Your task to perform on an android device: Turn on the flashlight Image 0: 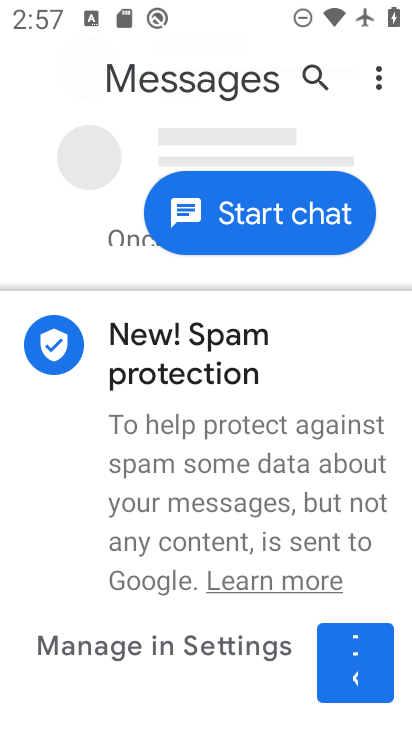
Step 0: press home button
Your task to perform on an android device: Turn on the flashlight Image 1: 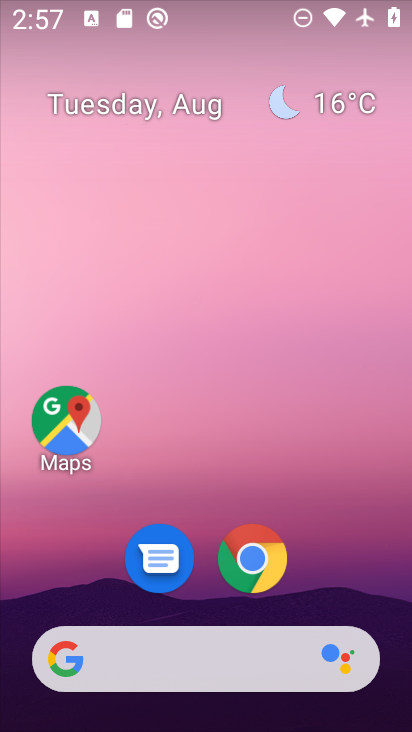
Step 1: drag from (198, 482) to (191, 124)
Your task to perform on an android device: Turn on the flashlight Image 2: 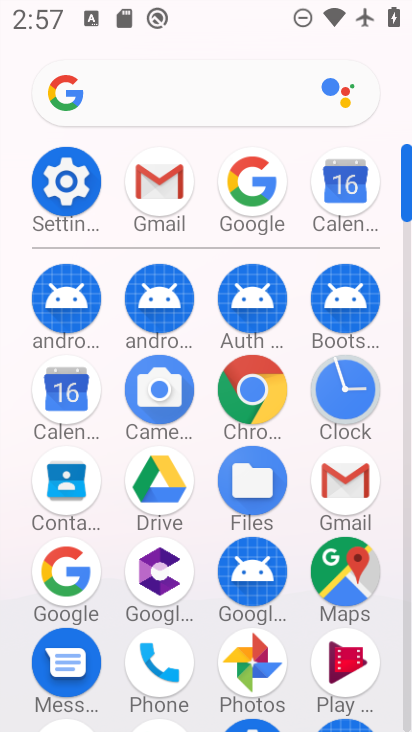
Step 2: click (47, 199)
Your task to perform on an android device: Turn on the flashlight Image 3: 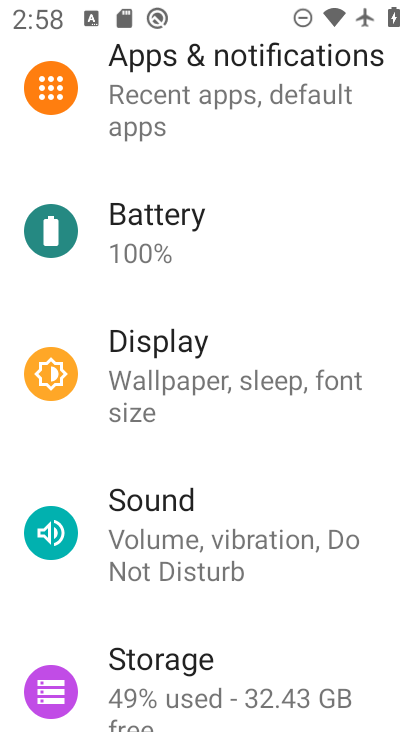
Step 3: task complete